Your task to perform on an android device: Go to network settings Image 0: 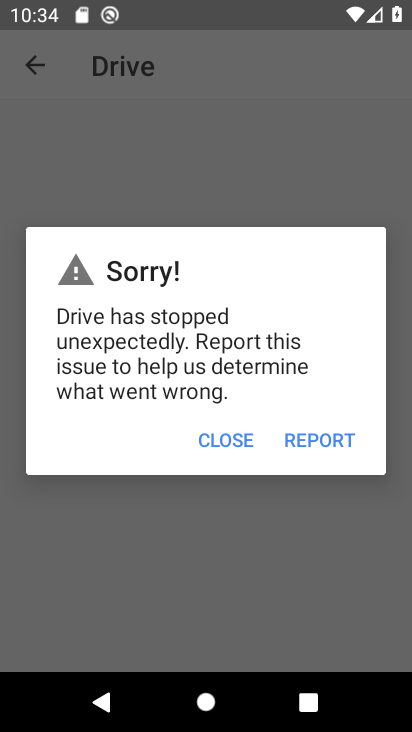
Step 0: press home button
Your task to perform on an android device: Go to network settings Image 1: 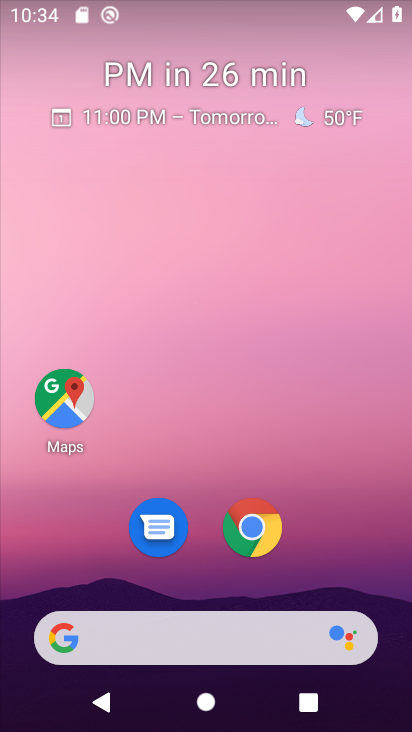
Step 1: drag from (345, 567) to (300, 186)
Your task to perform on an android device: Go to network settings Image 2: 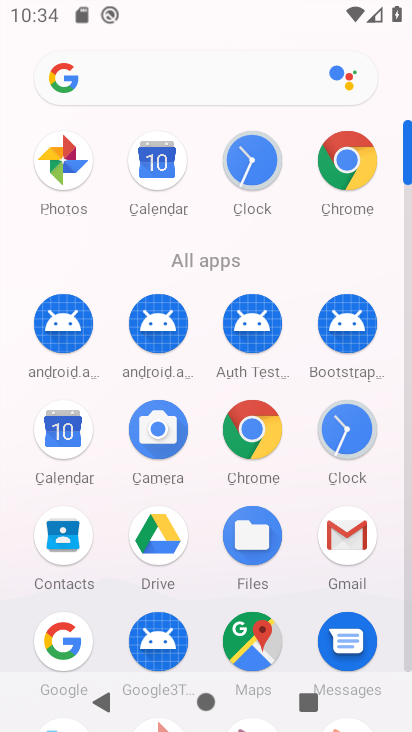
Step 2: drag from (224, 264) to (191, 47)
Your task to perform on an android device: Go to network settings Image 3: 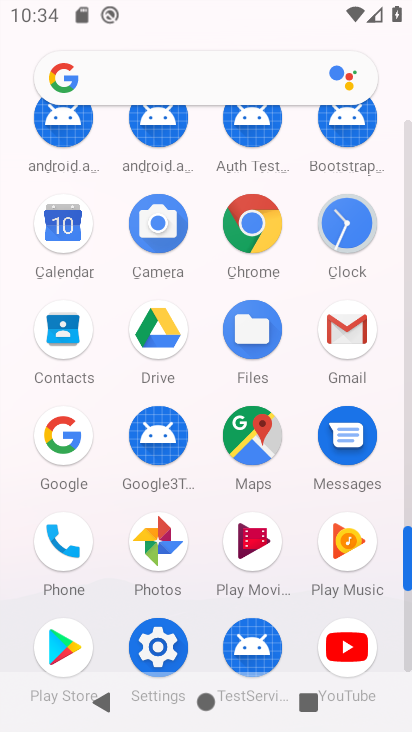
Step 3: click (161, 654)
Your task to perform on an android device: Go to network settings Image 4: 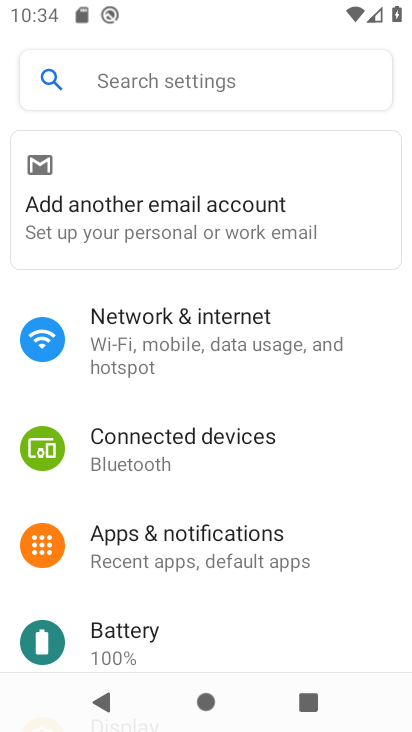
Step 4: click (221, 321)
Your task to perform on an android device: Go to network settings Image 5: 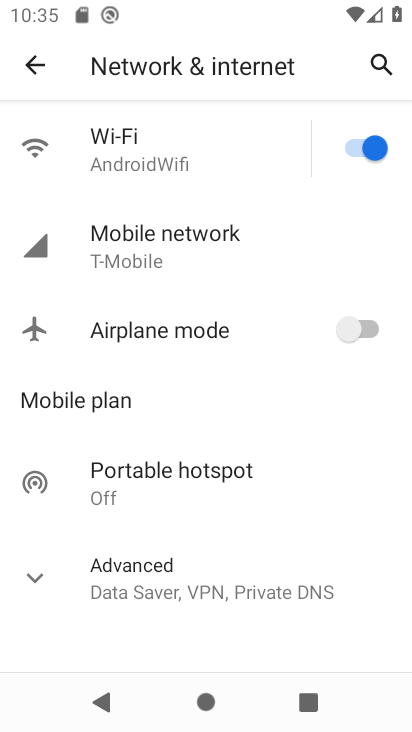
Step 5: task complete